Your task to perform on an android device: Search for pizza restaurants on Maps Image 0: 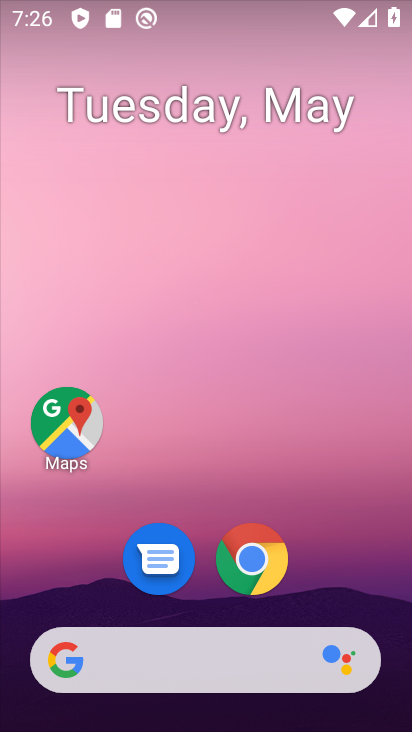
Step 0: drag from (398, 627) to (301, 0)
Your task to perform on an android device: Search for pizza restaurants on Maps Image 1: 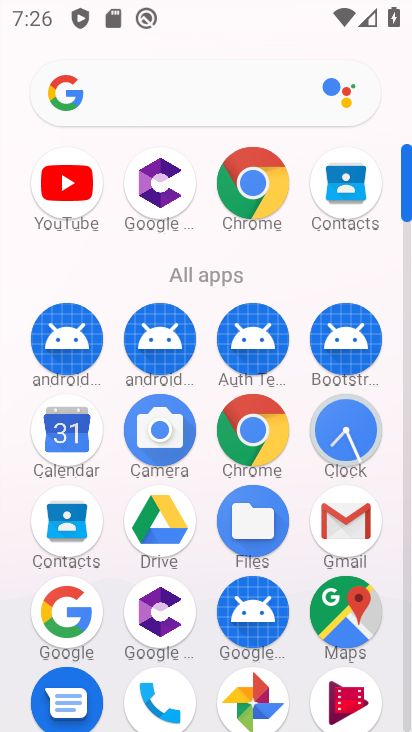
Step 1: click (353, 592)
Your task to perform on an android device: Search for pizza restaurants on Maps Image 2: 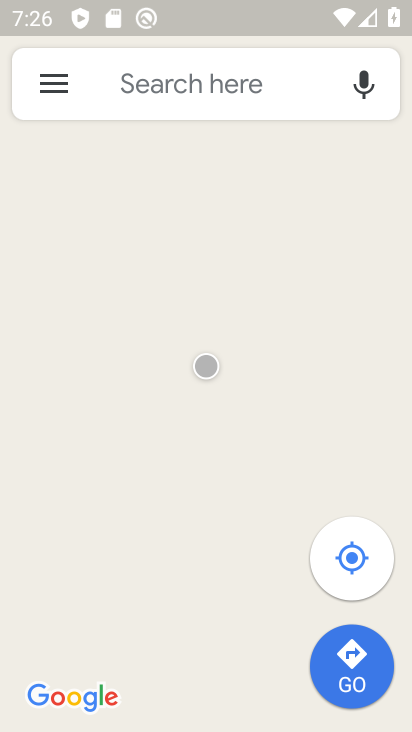
Step 2: click (212, 101)
Your task to perform on an android device: Search for pizza restaurants on Maps Image 3: 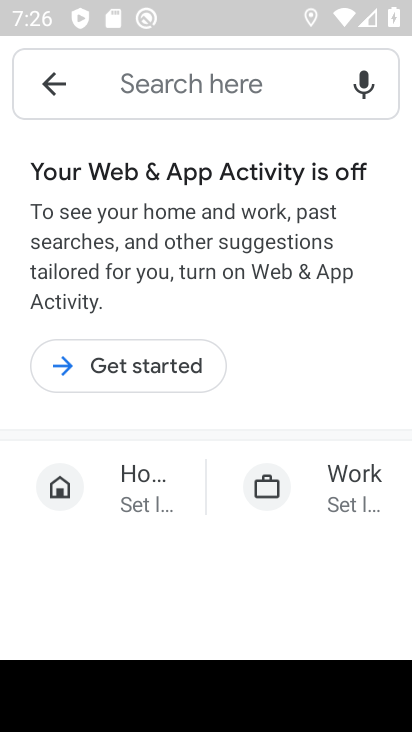
Step 3: click (131, 400)
Your task to perform on an android device: Search for pizza restaurants on Maps Image 4: 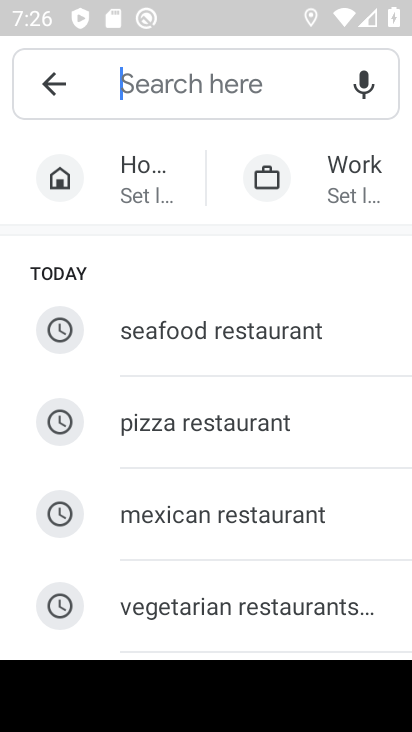
Step 4: click (208, 448)
Your task to perform on an android device: Search for pizza restaurants on Maps Image 5: 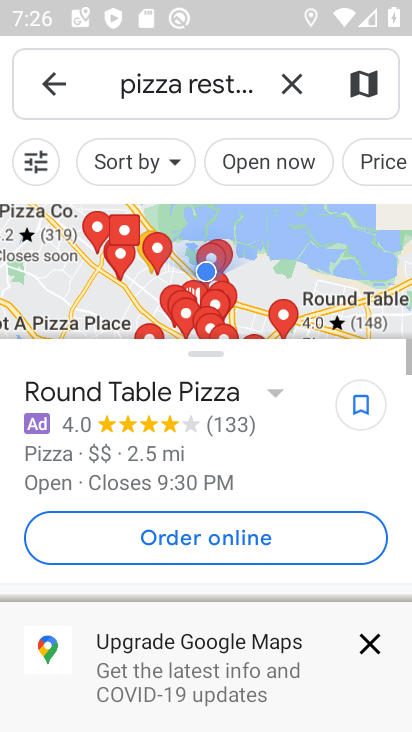
Step 5: task complete